Your task to perform on an android device: open chrome privacy settings Image 0: 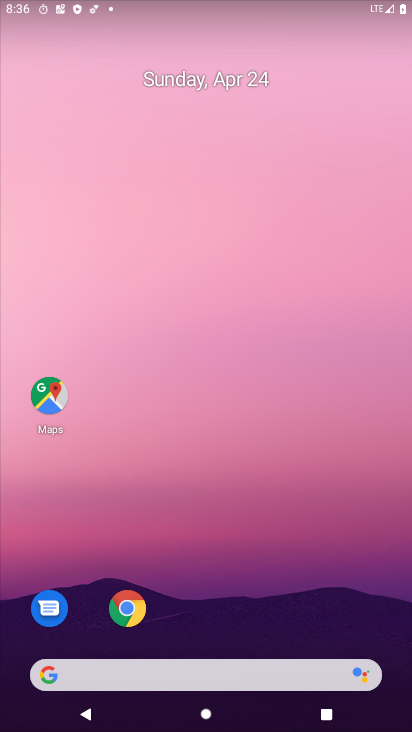
Step 0: click (128, 606)
Your task to perform on an android device: open chrome privacy settings Image 1: 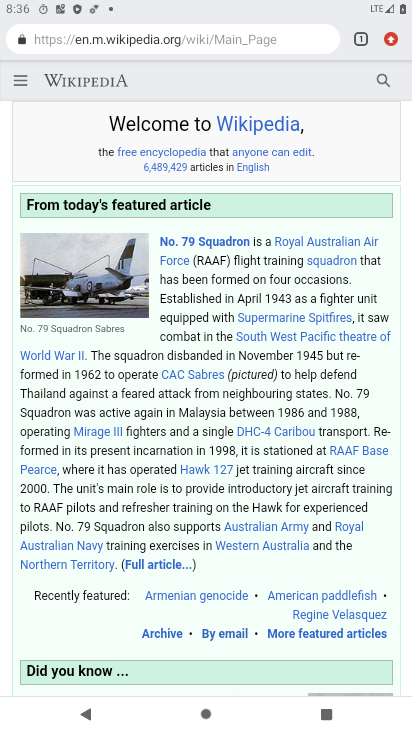
Step 1: click (392, 33)
Your task to perform on an android device: open chrome privacy settings Image 2: 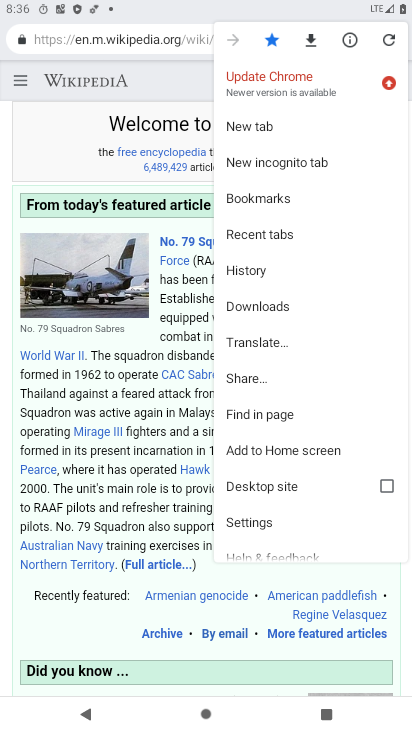
Step 2: click (272, 522)
Your task to perform on an android device: open chrome privacy settings Image 3: 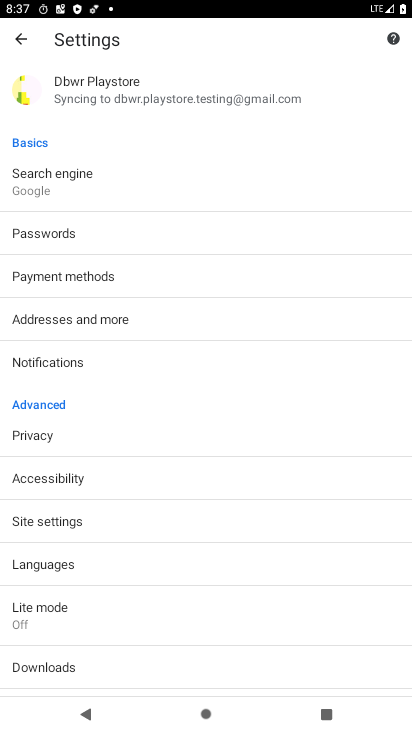
Step 3: click (154, 439)
Your task to perform on an android device: open chrome privacy settings Image 4: 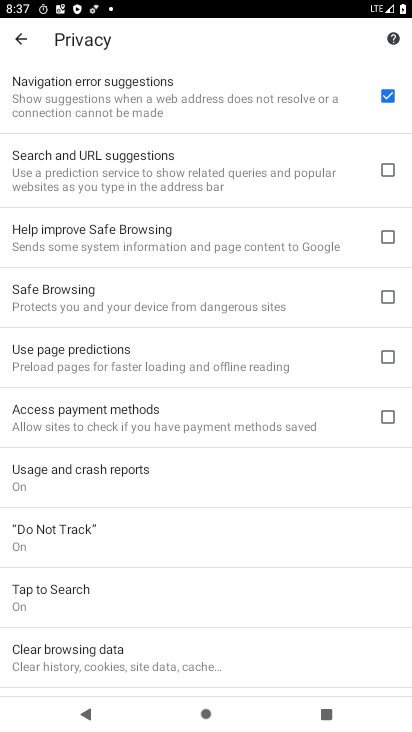
Step 4: task complete